Your task to perform on an android device: search for starred emails in the gmail app Image 0: 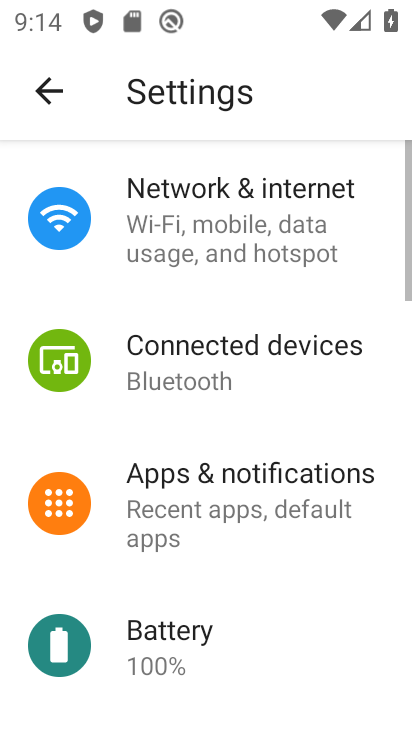
Step 0: press home button
Your task to perform on an android device: search for starred emails in the gmail app Image 1: 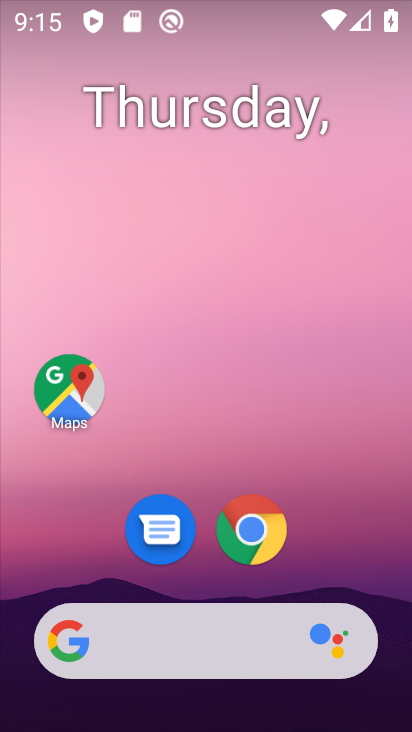
Step 1: drag from (351, 529) to (290, 153)
Your task to perform on an android device: search for starred emails in the gmail app Image 2: 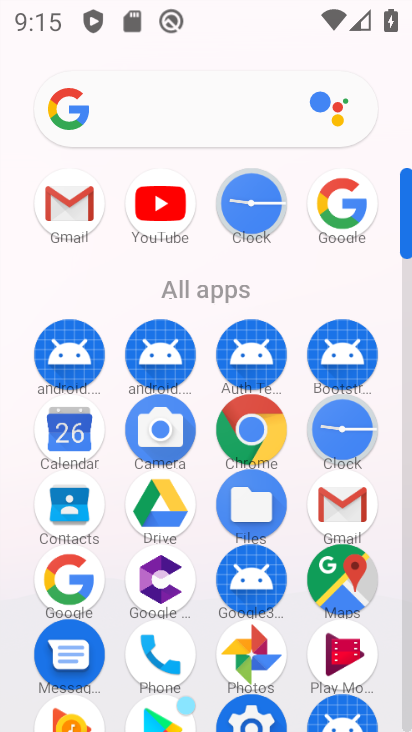
Step 2: click (66, 205)
Your task to perform on an android device: search for starred emails in the gmail app Image 3: 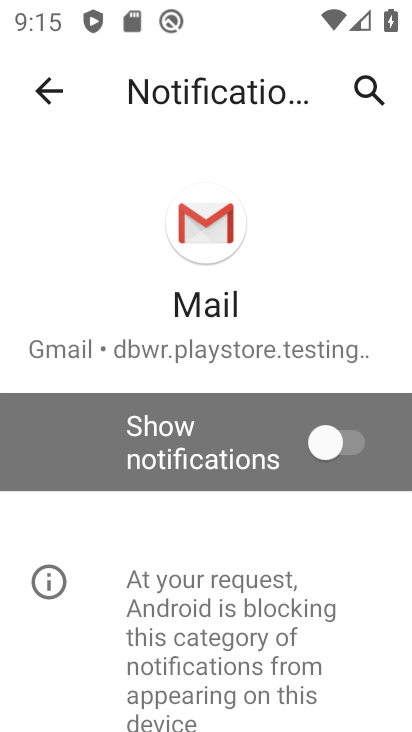
Step 3: press back button
Your task to perform on an android device: search for starred emails in the gmail app Image 4: 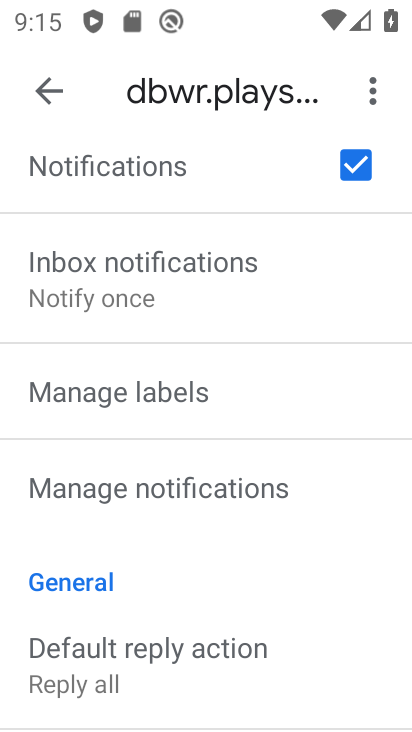
Step 4: press back button
Your task to perform on an android device: search for starred emails in the gmail app Image 5: 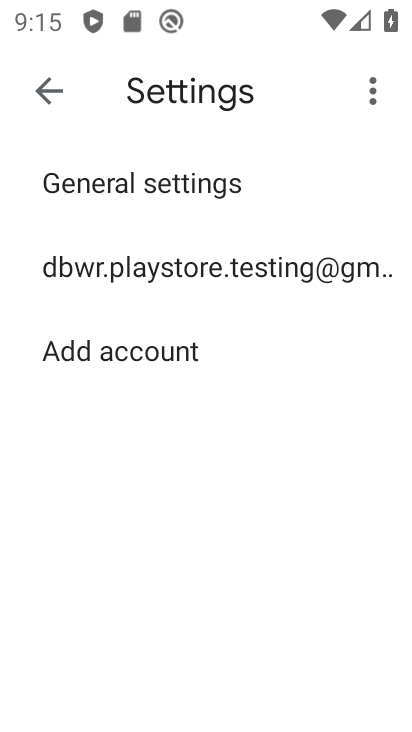
Step 5: press back button
Your task to perform on an android device: search for starred emails in the gmail app Image 6: 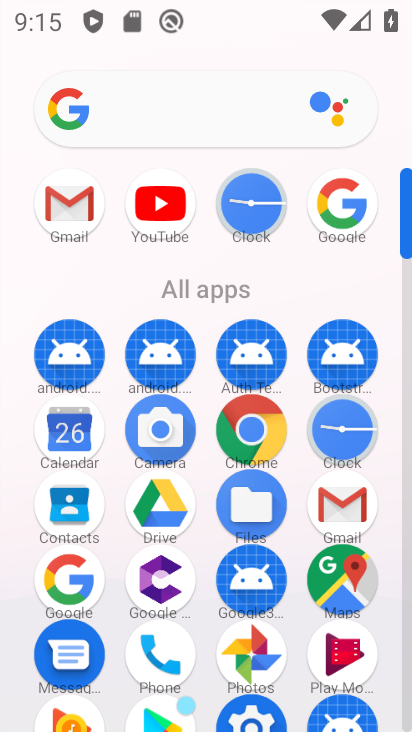
Step 6: click (69, 205)
Your task to perform on an android device: search for starred emails in the gmail app Image 7: 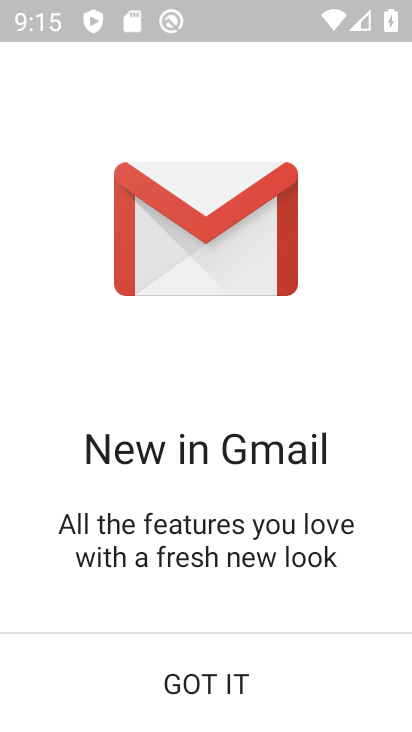
Step 7: click (220, 687)
Your task to perform on an android device: search for starred emails in the gmail app Image 8: 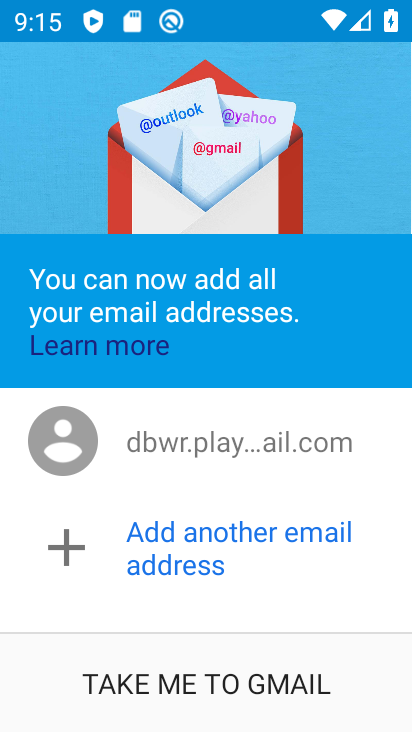
Step 8: click (220, 687)
Your task to perform on an android device: search for starred emails in the gmail app Image 9: 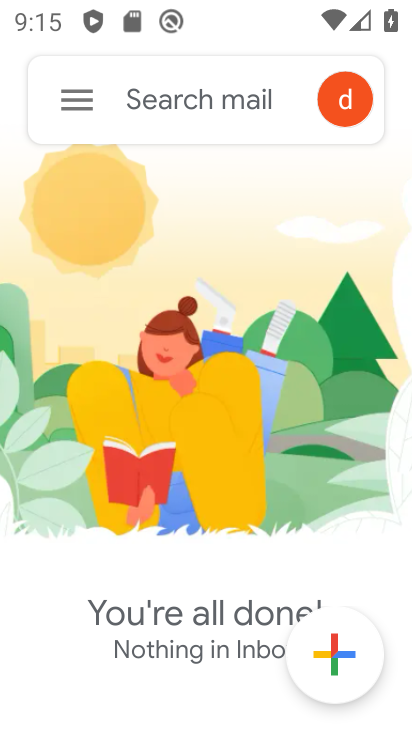
Step 9: click (77, 94)
Your task to perform on an android device: search for starred emails in the gmail app Image 10: 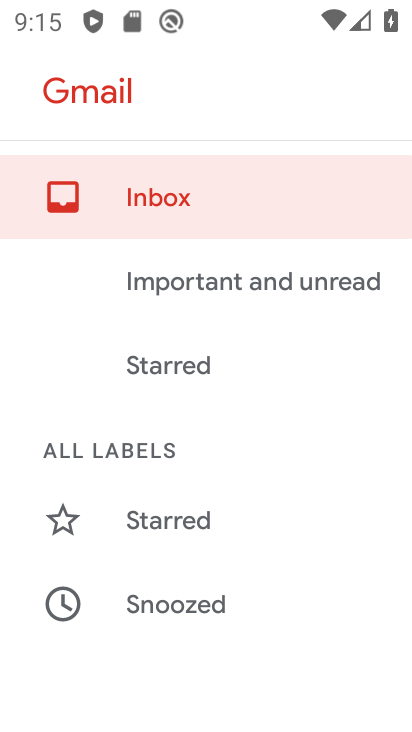
Step 10: click (189, 376)
Your task to perform on an android device: search for starred emails in the gmail app Image 11: 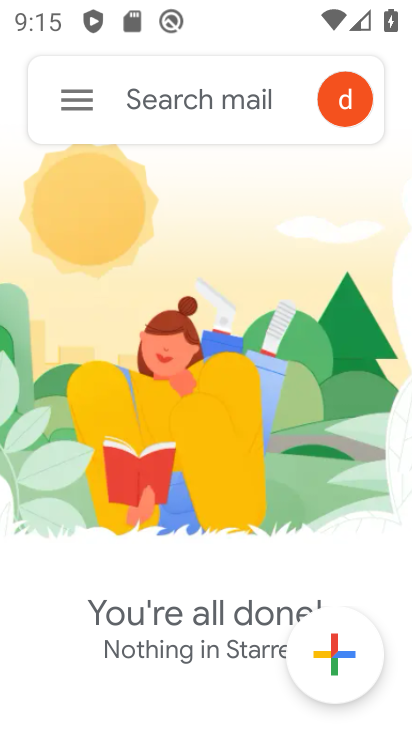
Step 11: click (90, 105)
Your task to perform on an android device: search for starred emails in the gmail app Image 12: 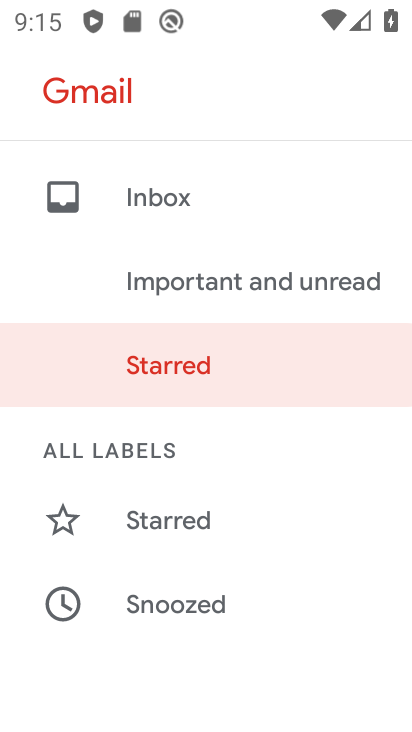
Step 12: drag from (209, 467) to (251, 364)
Your task to perform on an android device: search for starred emails in the gmail app Image 13: 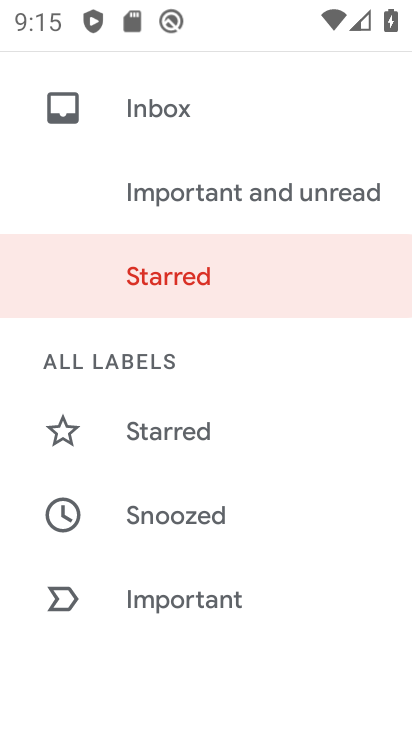
Step 13: drag from (203, 526) to (229, 421)
Your task to perform on an android device: search for starred emails in the gmail app Image 14: 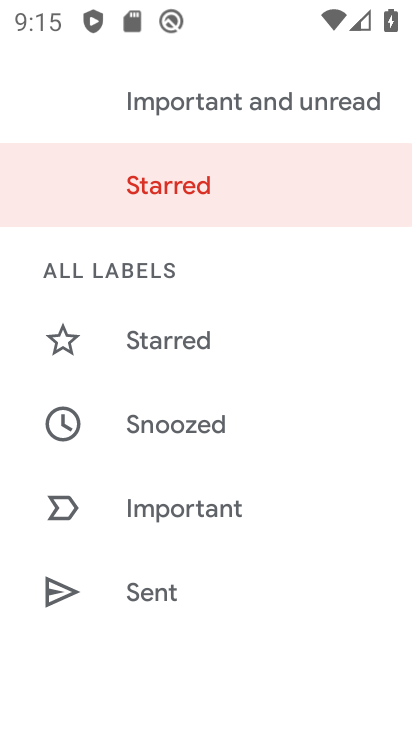
Step 14: drag from (196, 548) to (257, 445)
Your task to perform on an android device: search for starred emails in the gmail app Image 15: 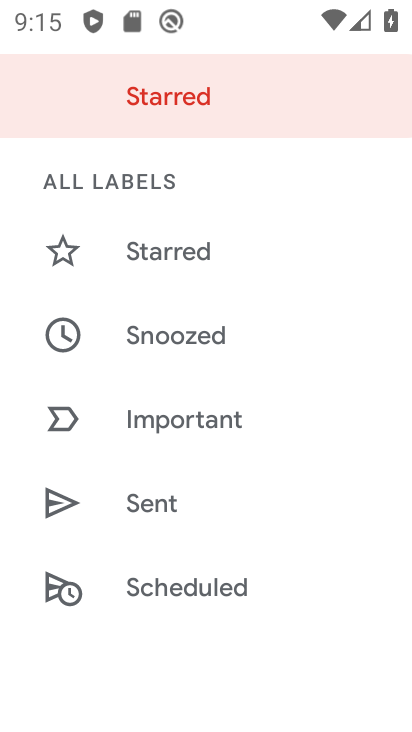
Step 15: drag from (181, 548) to (259, 456)
Your task to perform on an android device: search for starred emails in the gmail app Image 16: 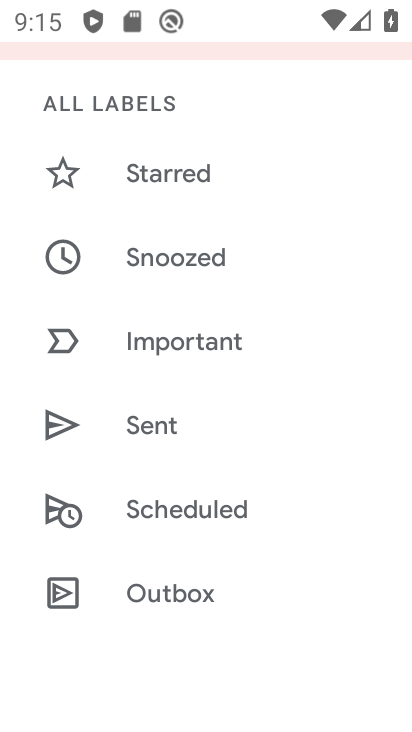
Step 16: drag from (158, 552) to (239, 442)
Your task to perform on an android device: search for starred emails in the gmail app Image 17: 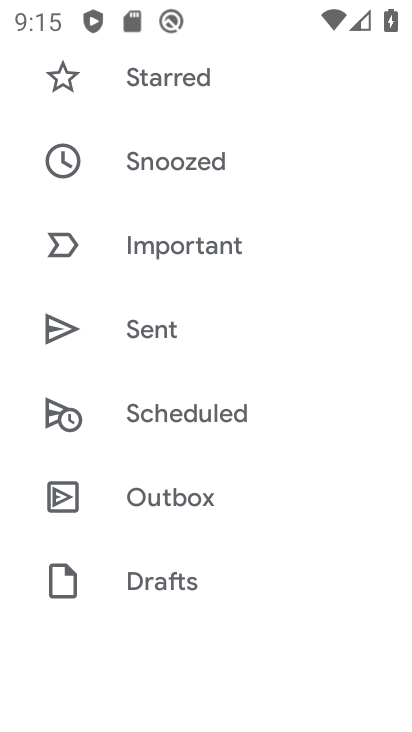
Step 17: drag from (160, 551) to (242, 455)
Your task to perform on an android device: search for starred emails in the gmail app Image 18: 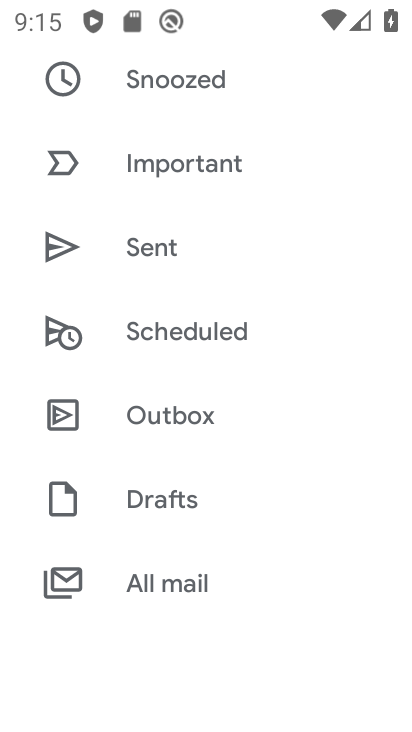
Step 18: click (150, 577)
Your task to perform on an android device: search for starred emails in the gmail app Image 19: 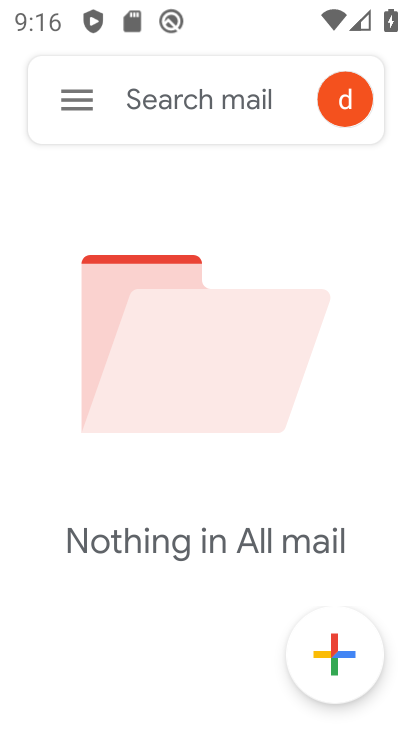
Step 19: task complete